Your task to perform on an android device: Check the news Image 0: 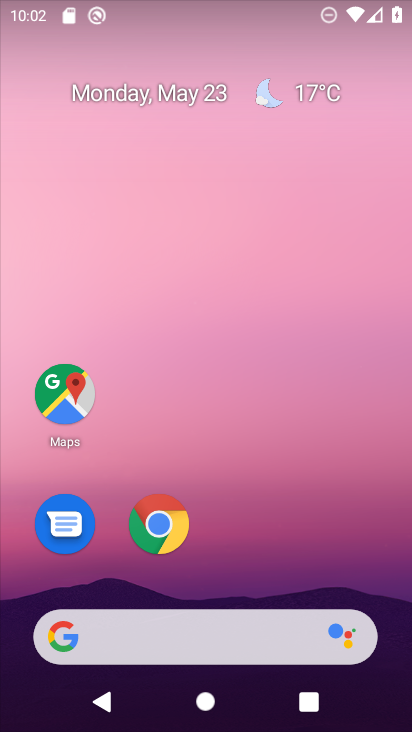
Step 0: drag from (215, 521) to (242, 195)
Your task to perform on an android device: Check the news Image 1: 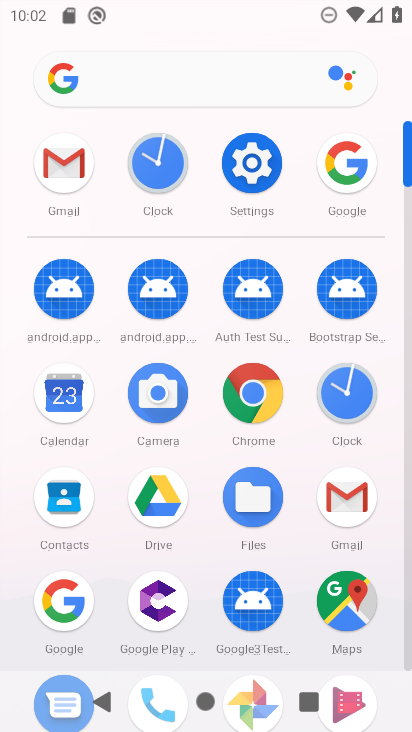
Step 1: click (59, 596)
Your task to perform on an android device: Check the news Image 2: 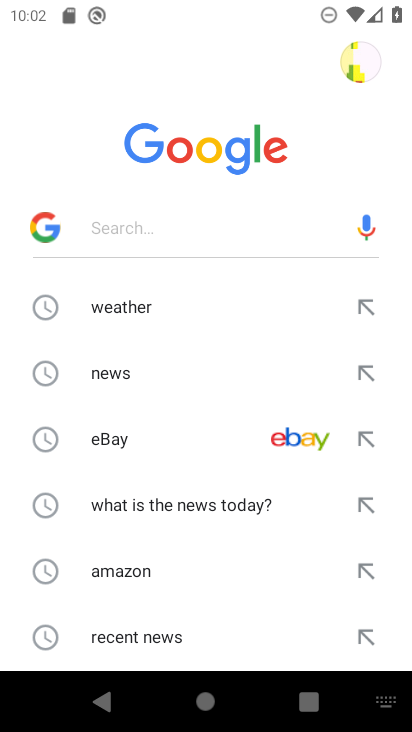
Step 2: click (131, 373)
Your task to perform on an android device: Check the news Image 3: 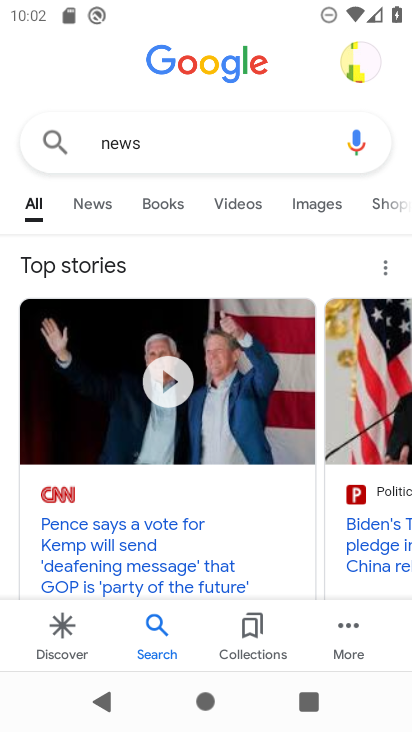
Step 3: click (90, 204)
Your task to perform on an android device: Check the news Image 4: 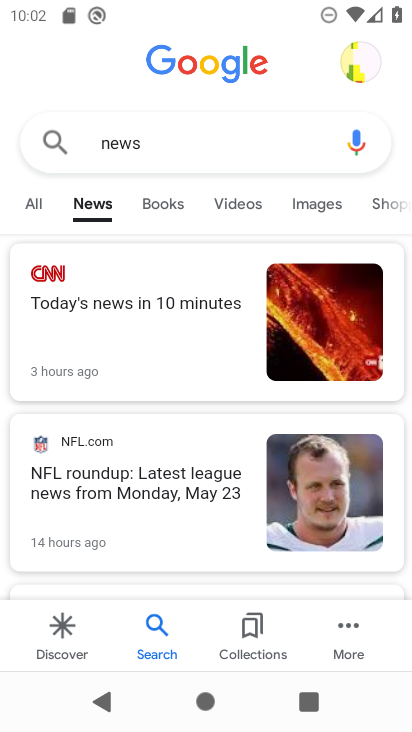
Step 4: task complete